Your task to perform on an android device: Open Youtube and go to the subscriptions tab Image 0: 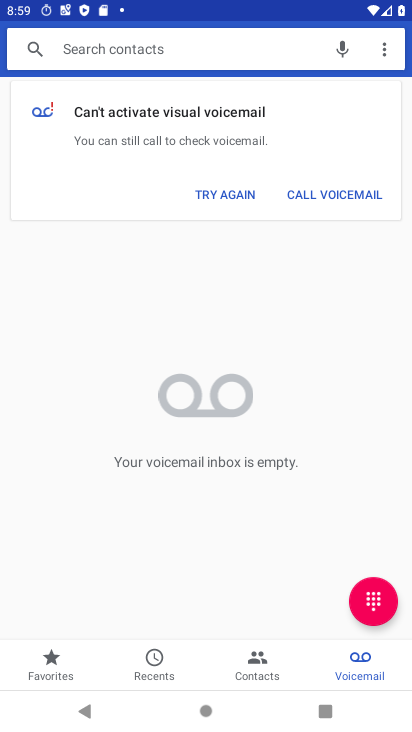
Step 0: press home button
Your task to perform on an android device: Open Youtube and go to the subscriptions tab Image 1: 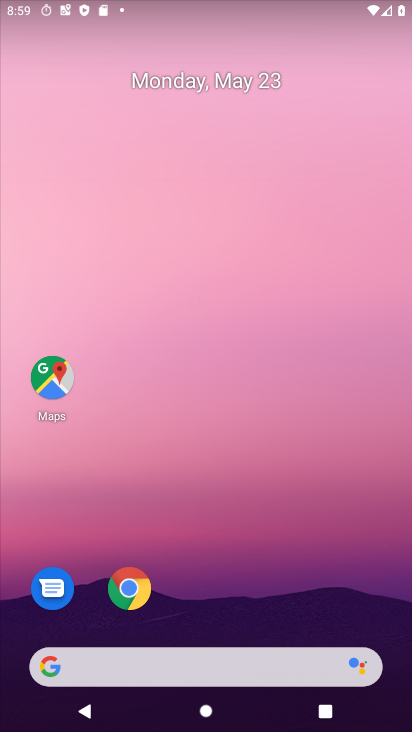
Step 1: drag from (373, 475) to (240, 29)
Your task to perform on an android device: Open Youtube and go to the subscriptions tab Image 2: 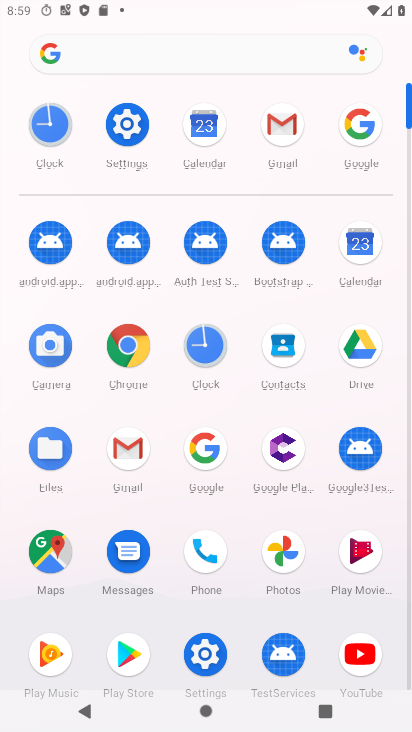
Step 2: click (369, 651)
Your task to perform on an android device: Open Youtube and go to the subscriptions tab Image 3: 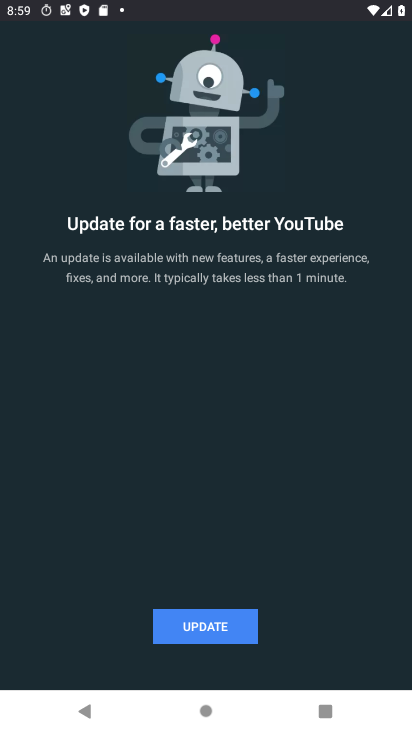
Step 3: press back button
Your task to perform on an android device: Open Youtube and go to the subscriptions tab Image 4: 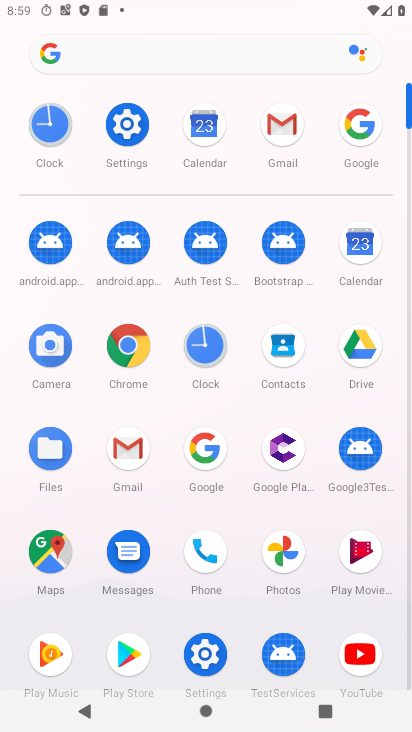
Step 4: click (374, 647)
Your task to perform on an android device: Open Youtube and go to the subscriptions tab Image 5: 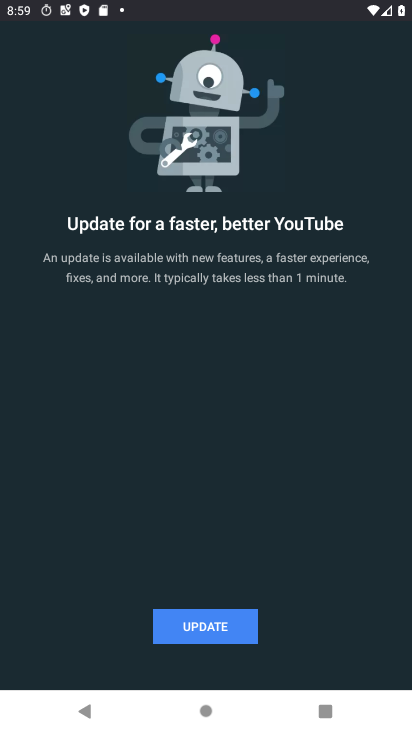
Step 5: click (244, 623)
Your task to perform on an android device: Open Youtube and go to the subscriptions tab Image 6: 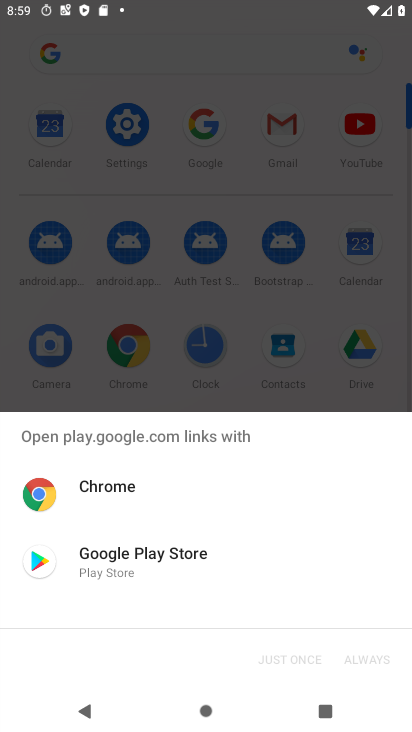
Step 6: click (131, 551)
Your task to perform on an android device: Open Youtube and go to the subscriptions tab Image 7: 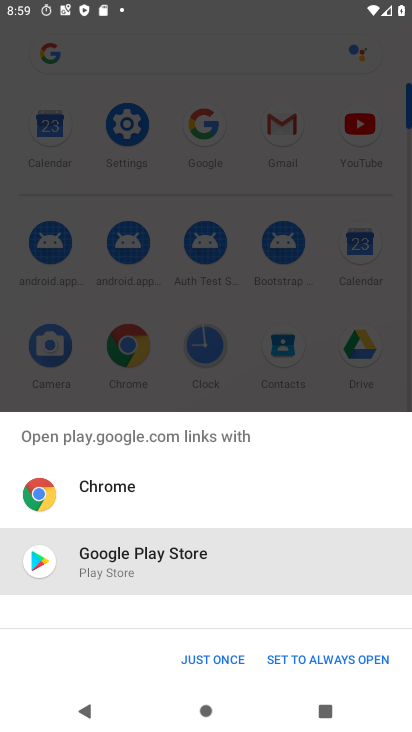
Step 7: click (208, 655)
Your task to perform on an android device: Open Youtube and go to the subscriptions tab Image 8: 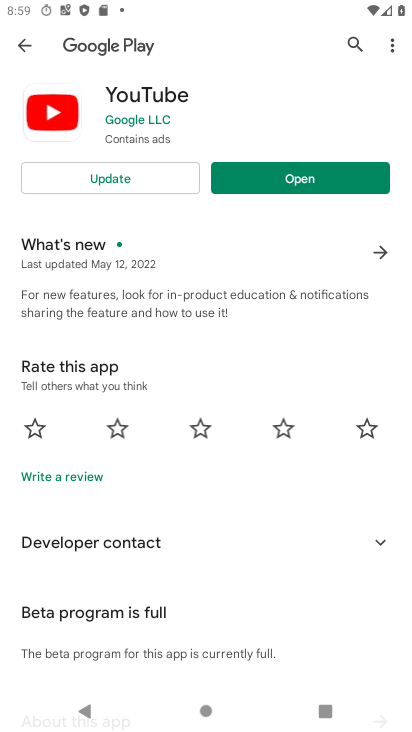
Step 8: click (295, 172)
Your task to perform on an android device: Open Youtube and go to the subscriptions tab Image 9: 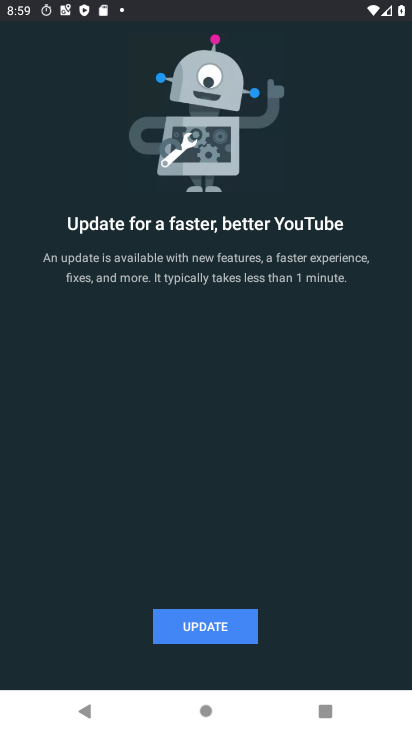
Step 9: click (162, 627)
Your task to perform on an android device: Open Youtube and go to the subscriptions tab Image 10: 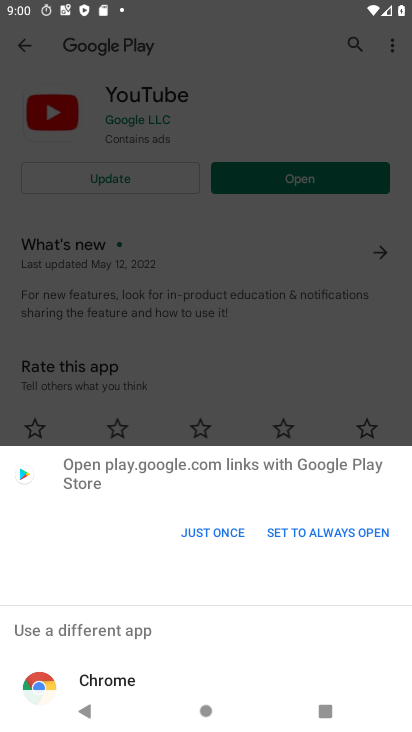
Step 10: click (220, 523)
Your task to perform on an android device: Open Youtube and go to the subscriptions tab Image 11: 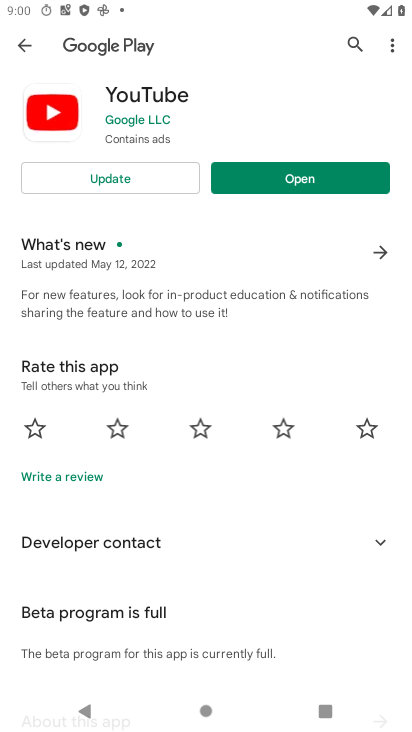
Step 11: click (255, 179)
Your task to perform on an android device: Open Youtube and go to the subscriptions tab Image 12: 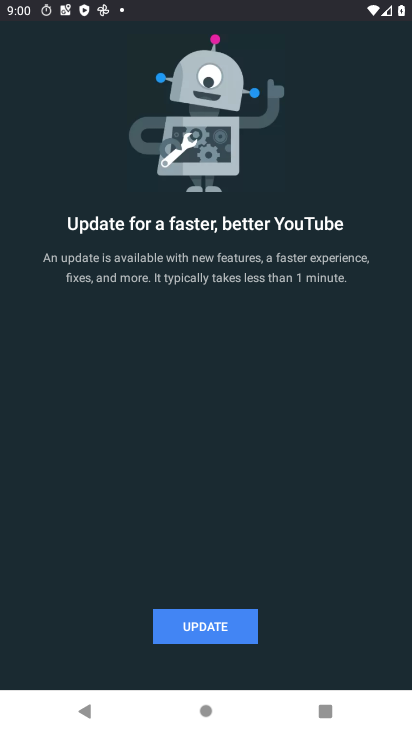
Step 12: click (215, 631)
Your task to perform on an android device: Open Youtube and go to the subscriptions tab Image 13: 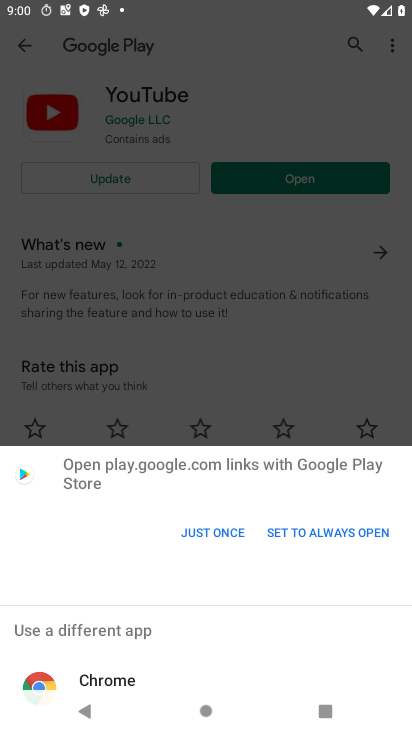
Step 13: click (206, 525)
Your task to perform on an android device: Open Youtube and go to the subscriptions tab Image 14: 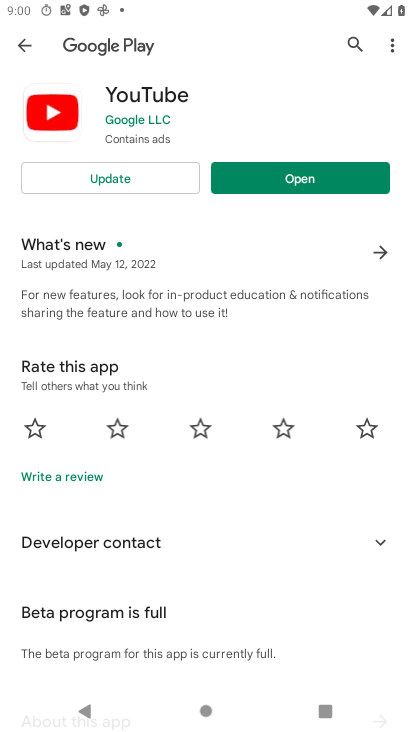
Step 14: click (131, 178)
Your task to perform on an android device: Open Youtube and go to the subscriptions tab Image 15: 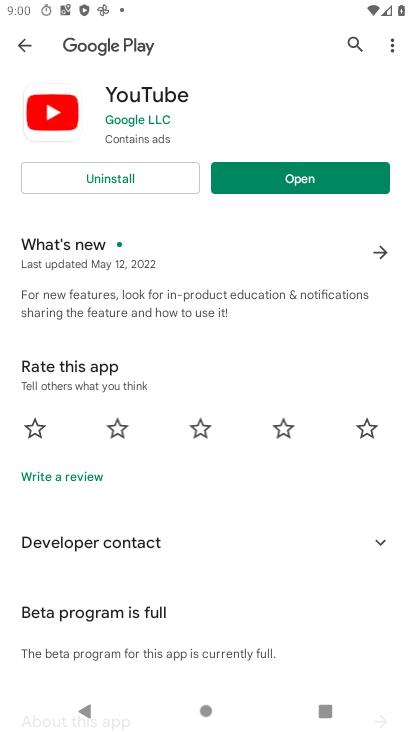
Step 15: click (261, 181)
Your task to perform on an android device: Open Youtube and go to the subscriptions tab Image 16: 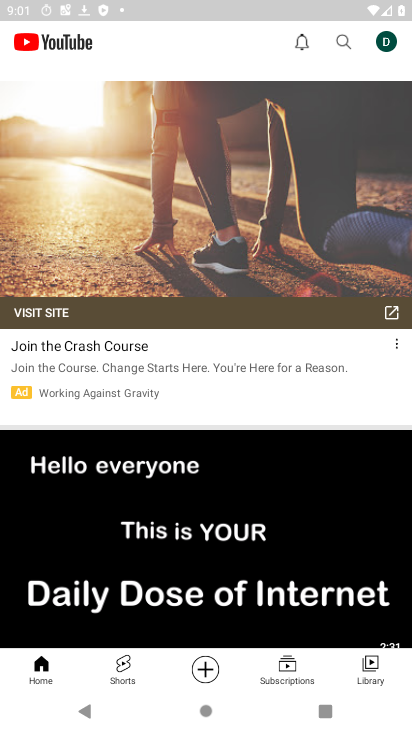
Step 16: click (289, 664)
Your task to perform on an android device: Open Youtube and go to the subscriptions tab Image 17: 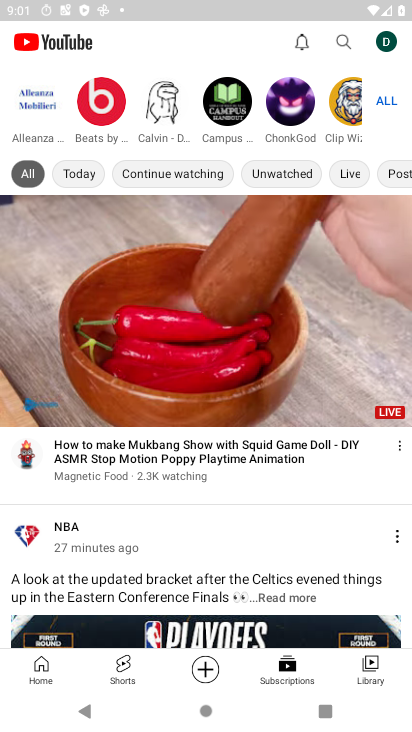
Step 17: task complete